Your task to perform on an android device: Open Google Chrome and click the shortcut for Amazon.com Image 0: 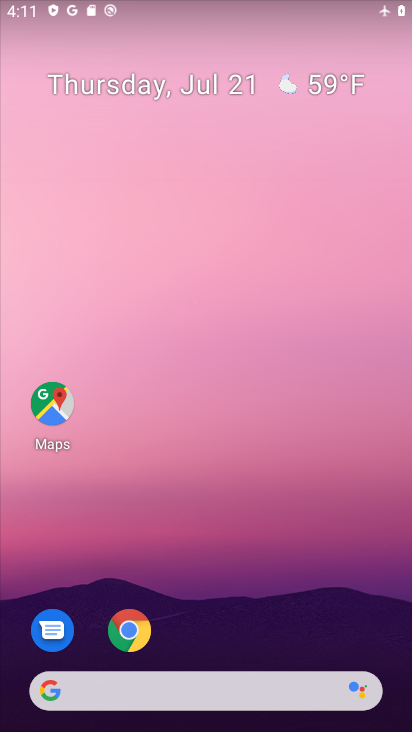
Step 0: drag from (275, 621) to (191, 206)
Your task to perform on an android device: Open Google Chrome and click the shortcut for Amazon.com Image 1: 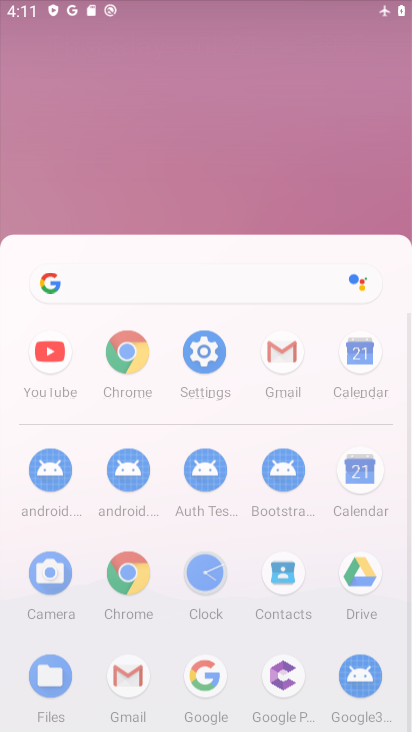
Step 1: drag from (207, 524) to (219, 306)
Your task to perform on an android device: Open Google Chrome and click the shortcut for Amazon.com Image 2: 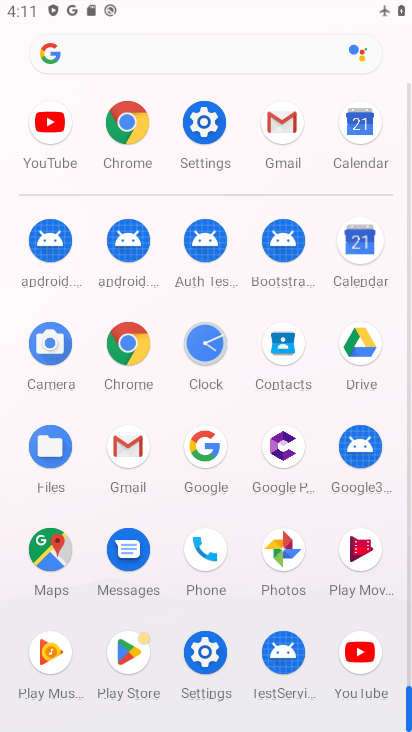
Step 2: click (122, 336)
Your task to perform on an android device: Open Google Chrome and click the shortcut for Amazon.com Image 3: 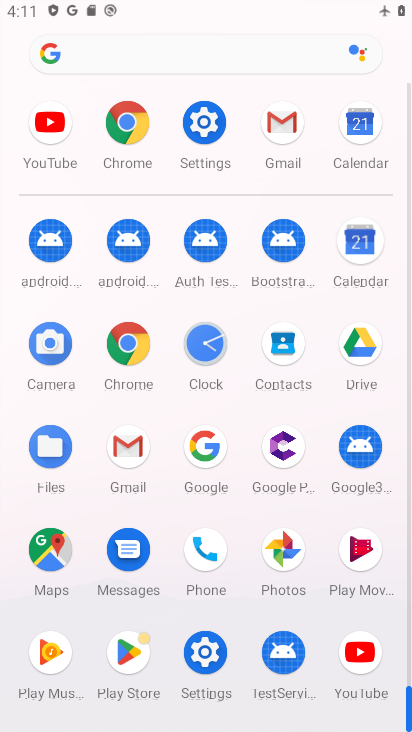
Step 3: click (123, 340)
Your task to perform on an android device: Open Google Chrome and click the shortcut for Amazon.com Image 4: 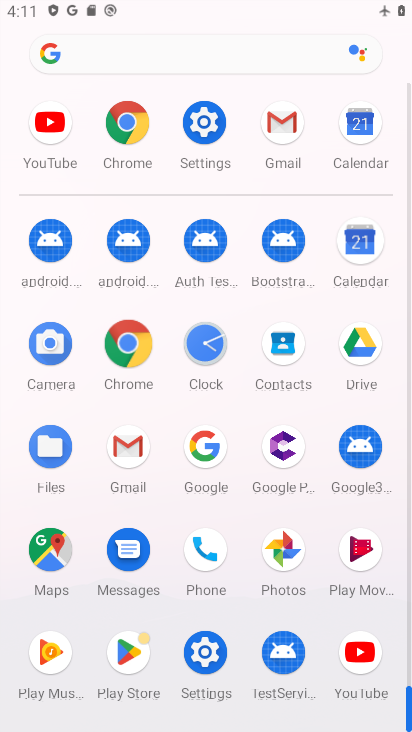
Step 4: click (117, 341)
Your task to perform on an android device: Open Google Chrome and click the shortcut for Amazon.com Image 5: 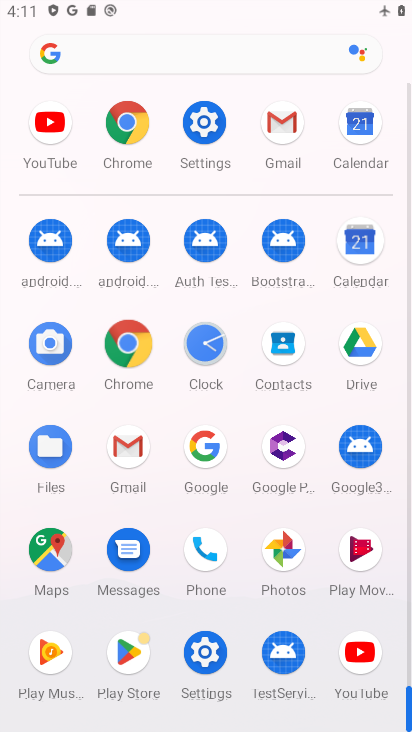
Step 5: click (120, 348)
Your task to perform on an android device: Open Google Chrome and click the shortcut for Amazon.com Image 6: 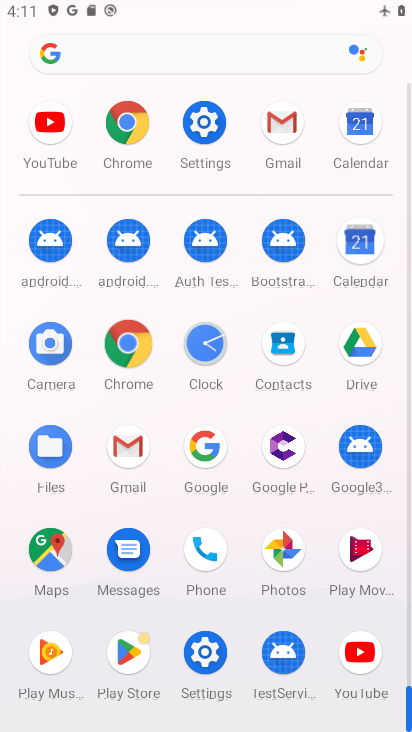
Step 6: click (125, 343)
Your task to perform on an android device: Open Google Chrome and click the shortcut for Amazon.com Image 7: 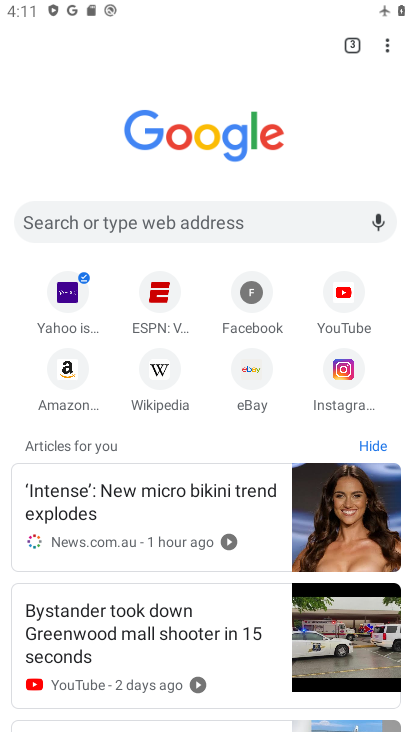
Step 7: click (70, 369)
Your task to perform on an android device: Open Google Chrome and click the shortcut for Amazon.com Image 8: 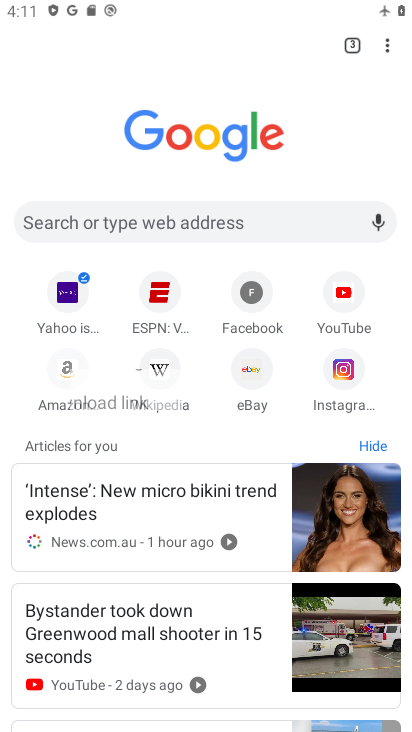
Step 8: click (57, 381)
Your task to perform on an android device: Open Google Chrome and click the shortcut for Amazon.com Image 9: 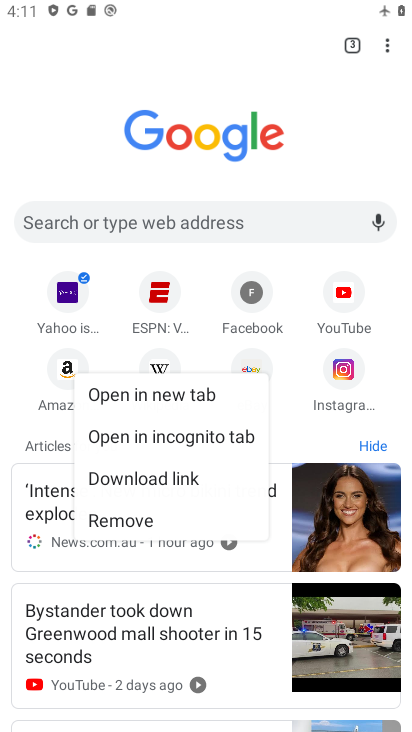
Step 9: click (59, 382)
Your task to perform on an android device: Open Google Chrome and click the shortcut for Amazon.com Image 10: 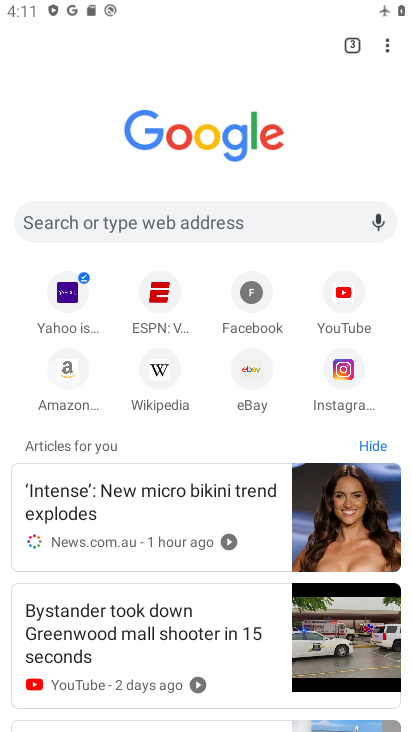
Step 10: click (59, 380)
Your task to perform on an android device: Open Google Chrome and click the shortcut for Amazon.com Image 11: 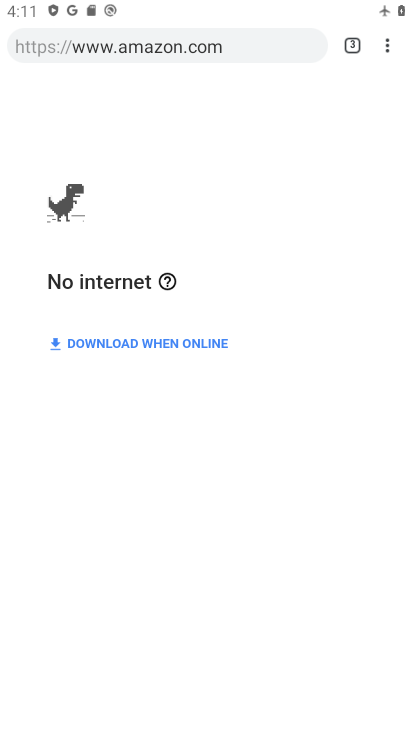
Step 11: task complete